Your task to perform on an android device: turn on sleep mode Image 0: 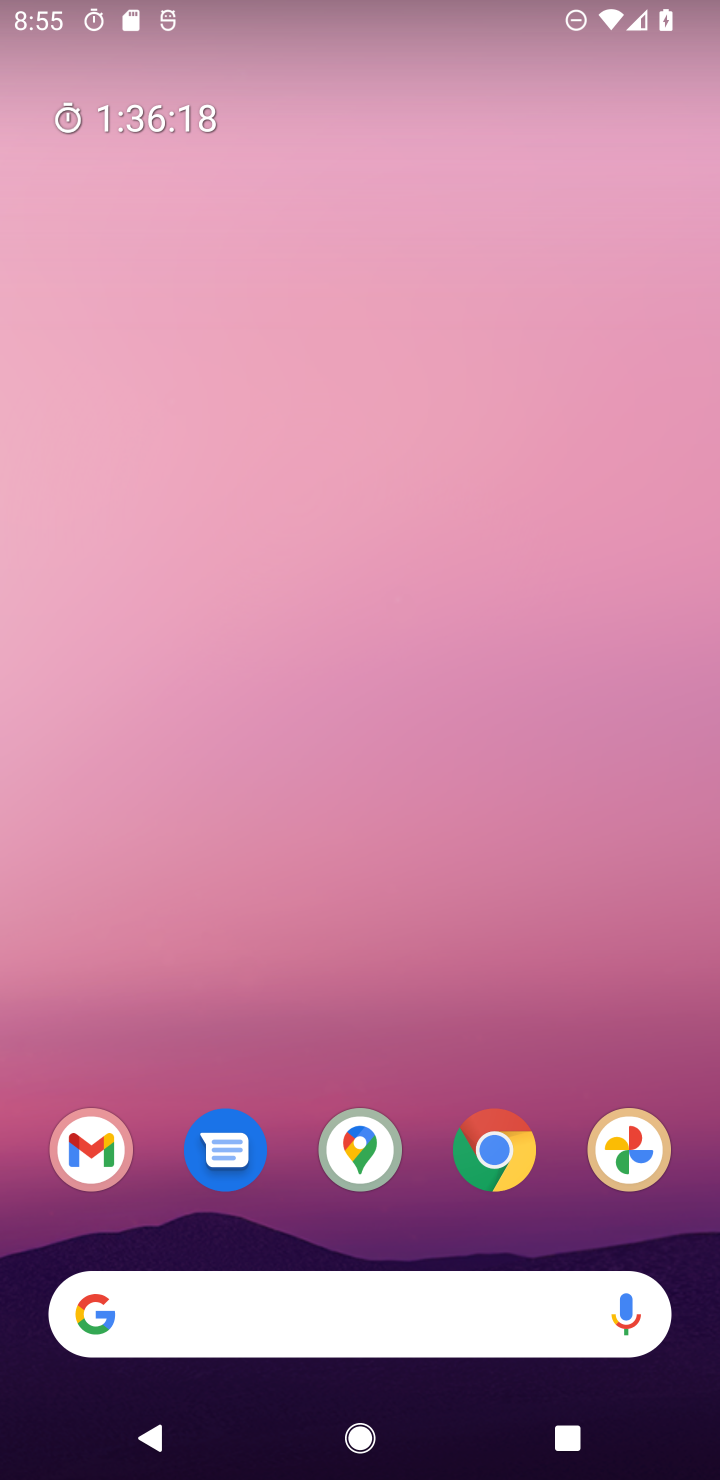
Step 0: drag from (481, 1278) to (719, 318)
Your task to perform on an android device: turn on sleep mode Image 1: 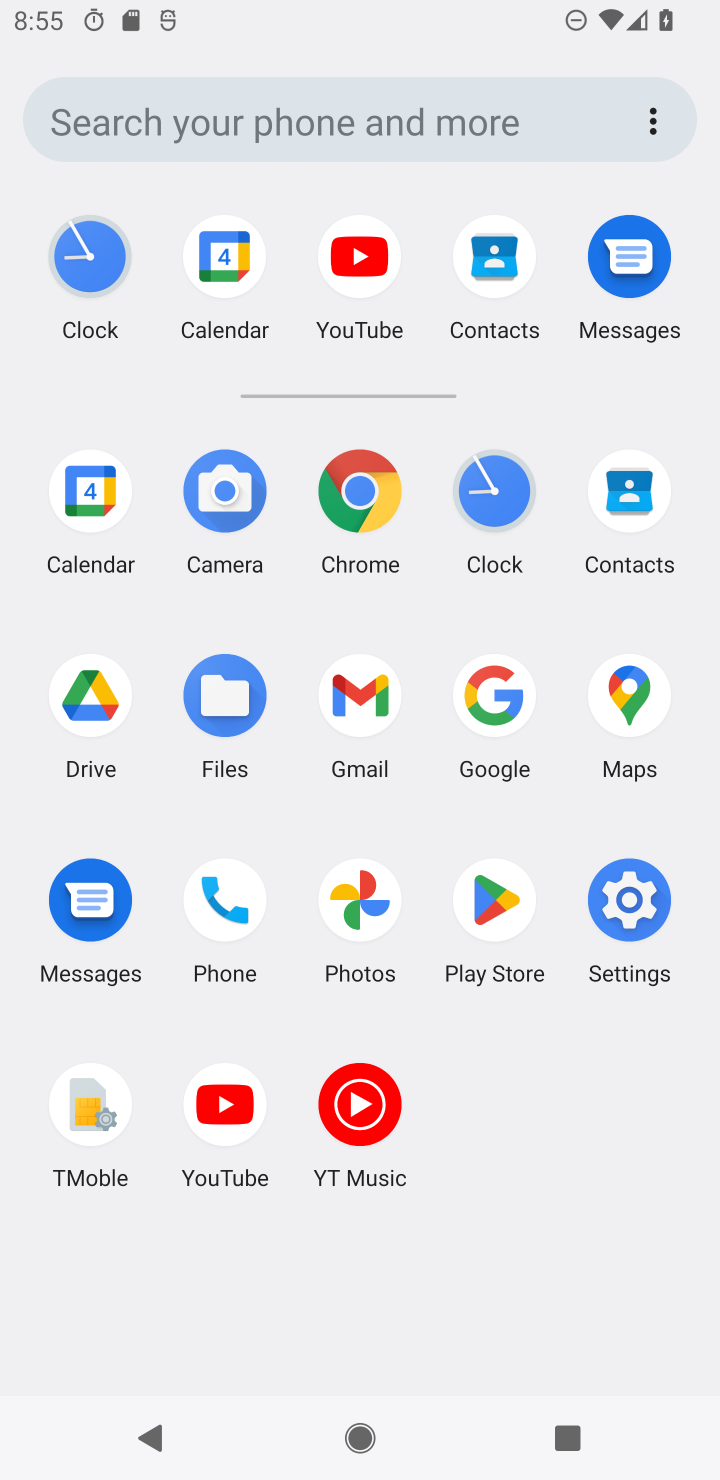
Step 1: click (663, 901)
Your task to perform on an android device: turn on sleep mode Image 2: 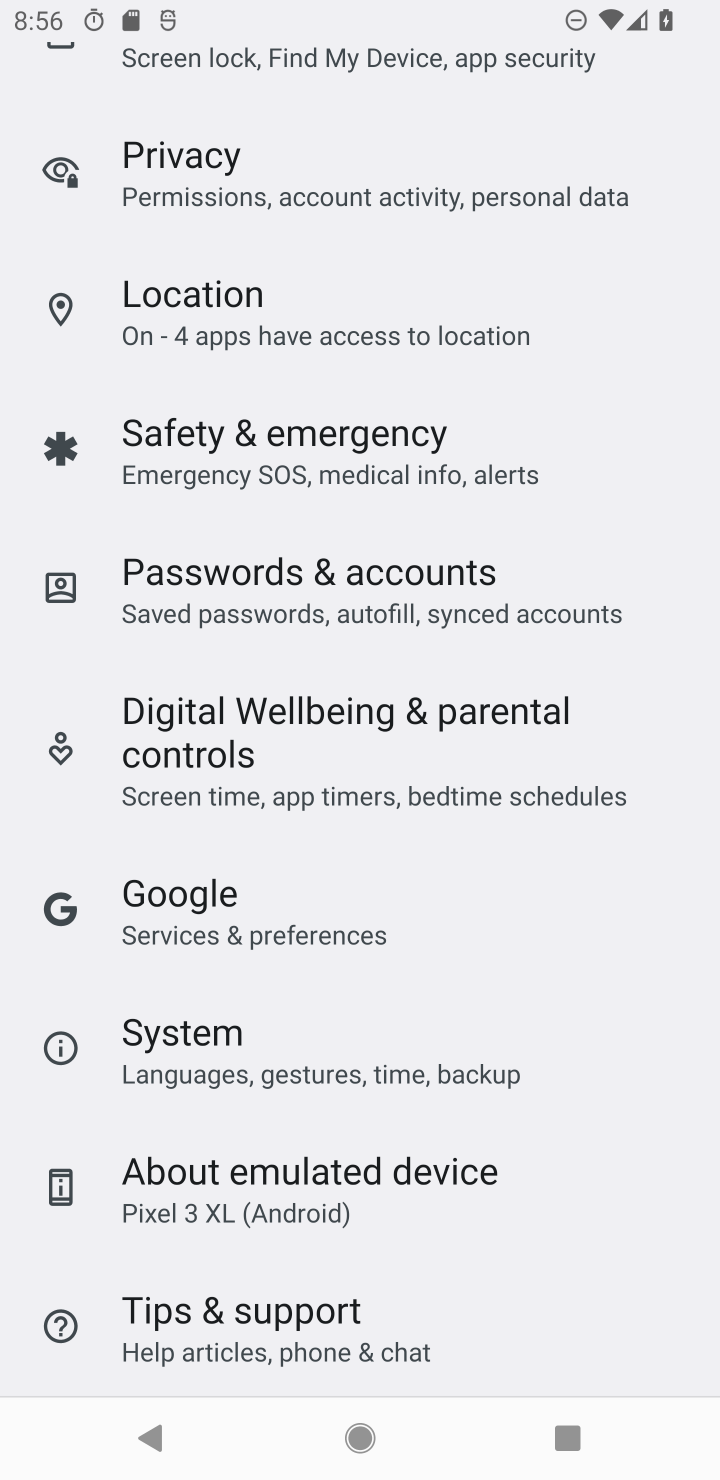
Step 2: task complete